Your task to perform on an android device: check storage Image 0: 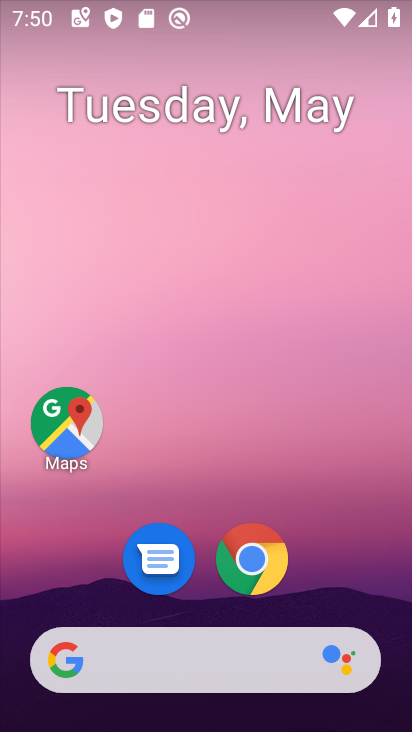
Step 0: drag from (382, 507) to (336, 95)
Your task to perform on an android device: check storage Image 1: 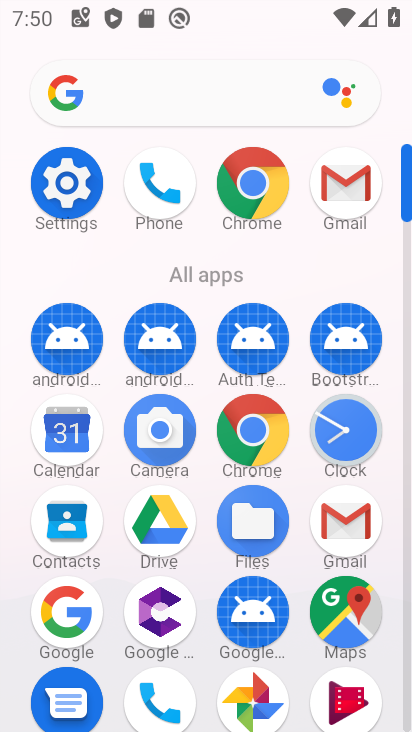
Step 1: click (44, 197)
Your task to perform on an android device: check storage Image 2: 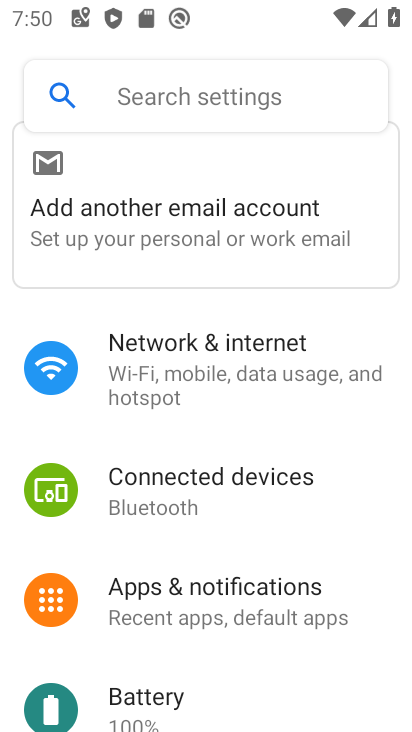
Step 2: drag from (176, 531) to (160, 191)
Your task to perform on an android device: check storage Image 3: 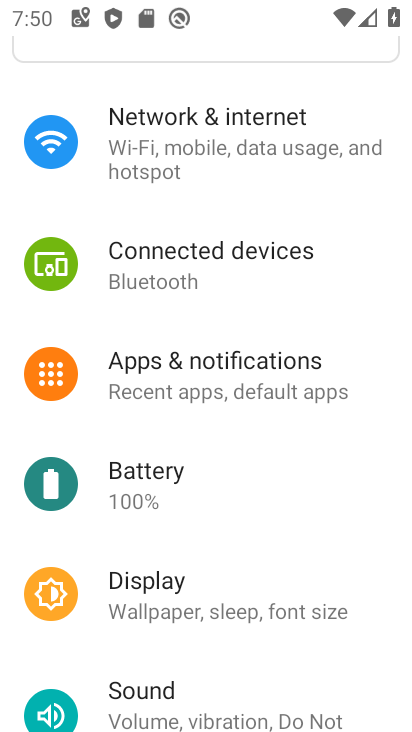
Step 3: drag from (182, 613) to (215, 360)
Your task to perform on an android device: check storage Image 4: 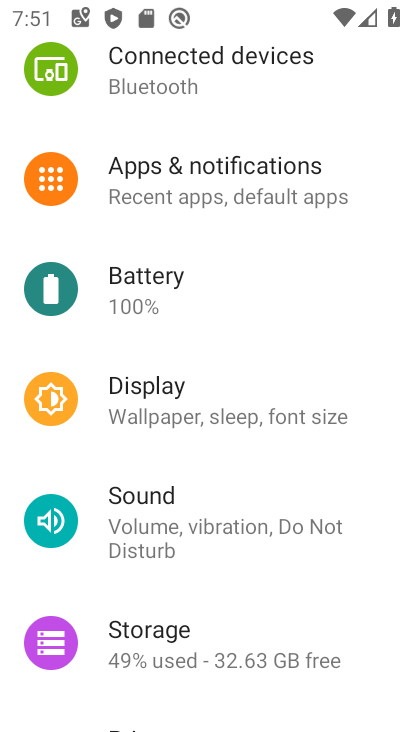
Step 4: drag from (219, 619) to (278, 307)
Your task to perform on an android device: check storage Image 5: 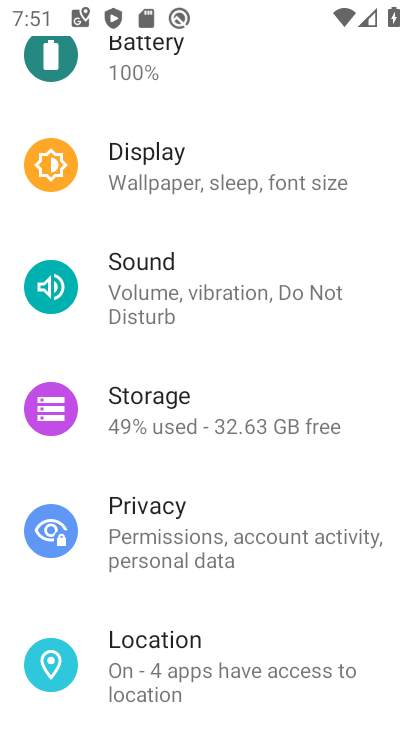
Step 5: click (210, 416)
Your task to perform on an android device: check storage Image 6: 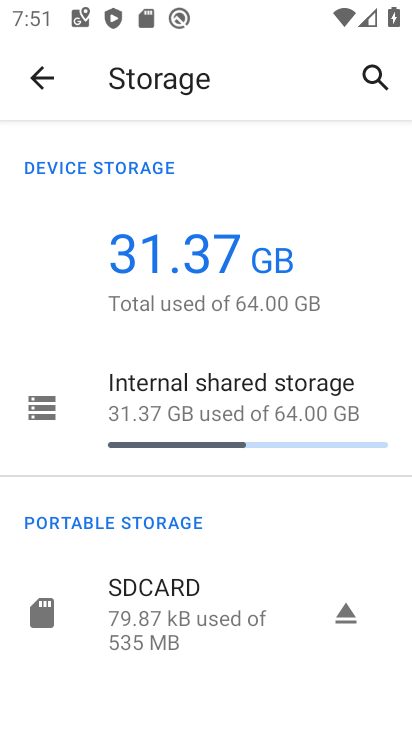
Step 6: click (206, 380)
Your task to perform on an android device: check storage Image 7: 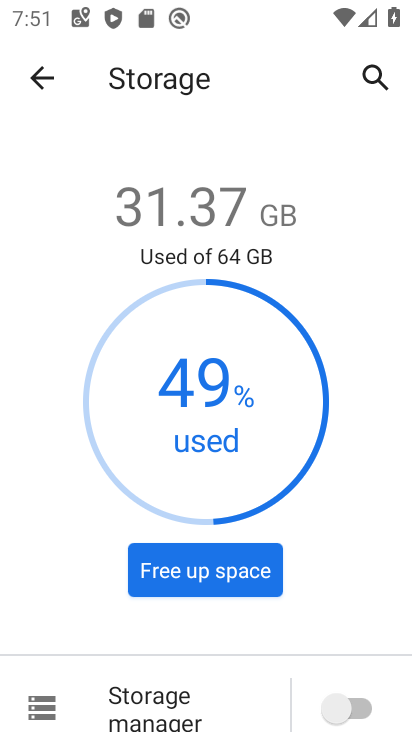
Step 7: task complete